Your task to perform on an android device: Open the clock Image 0: 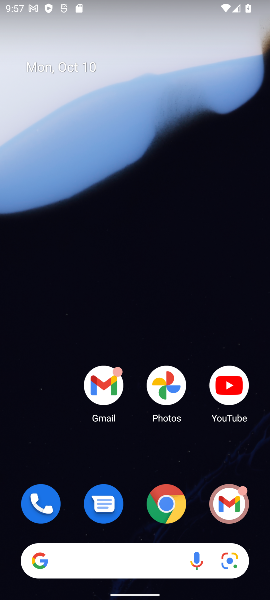
Step 0: drag from (193, 528) to (180, 104)
Your task to perform on an android device: Open the clock Image 1: 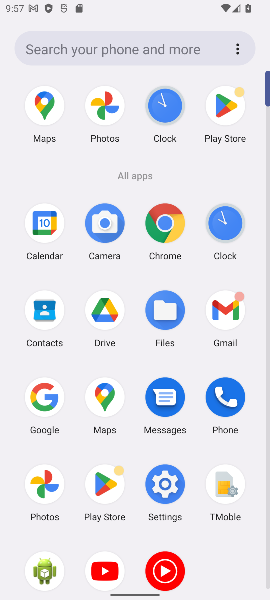
Step 1: click (223, 220)
Your task to perform on an android device: Open the clock Image 2: 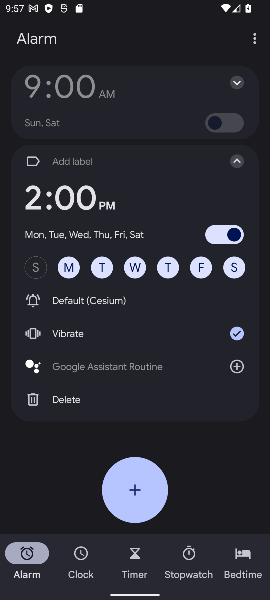
Step 2: click (87, 571)
Your task to perform on an android device: Open the clock Image 3: 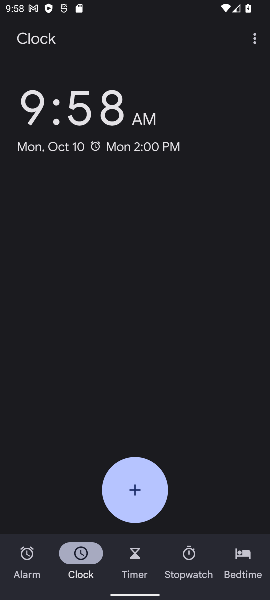
Step 3: task complete